Your task to perform on an android device: Go to Amazon Image 0: 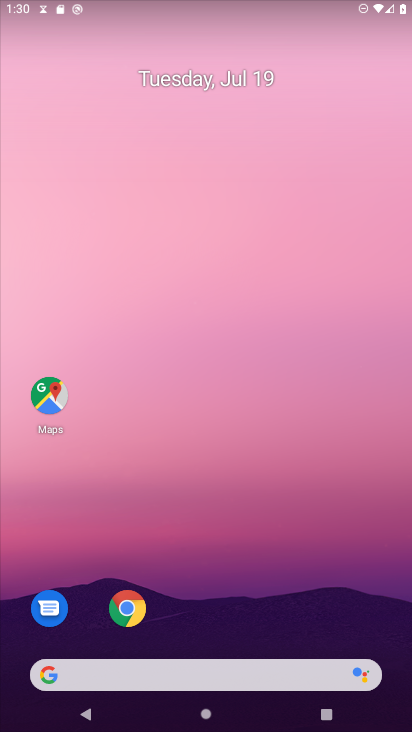
Step 0: drag from (212, 685) to (265, 9)
Your task to perform on an android device: Go to Amazon Image 1: 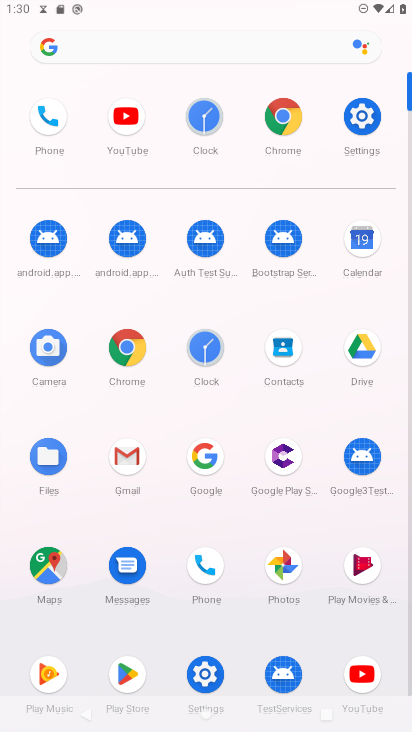
Step 1: click (122, 352)
Your task to perform on an android device: Go to Amazon Image 2: 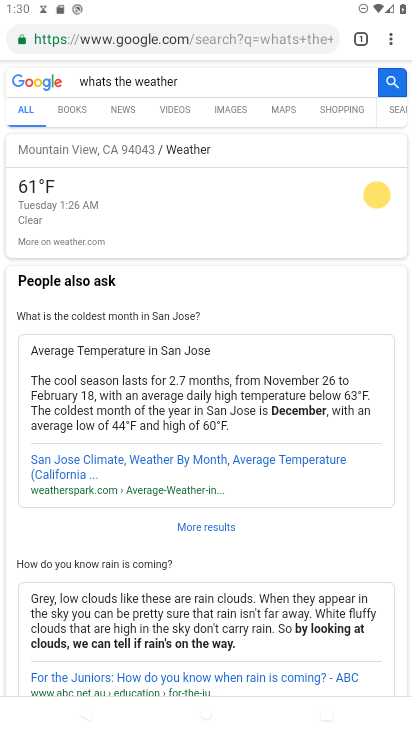
Step 2: click (264, 35)
Your task to perform on an android device: Go to Amazon Image 3: 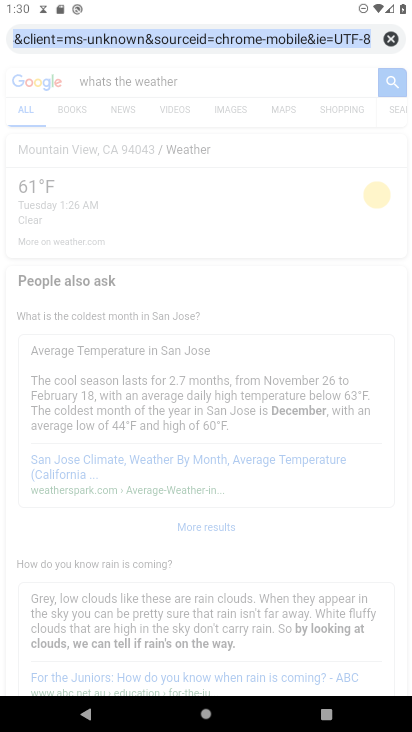
Step 3: type "amazon"
Your task to perform on an android device: Go to Amazon Image 4: 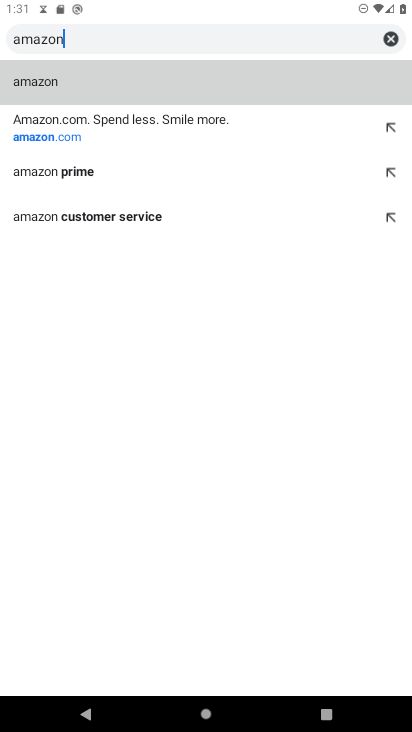
Step 4: click (111, 141)
Your task to perform on an android device: Go to Amazon Image 5: 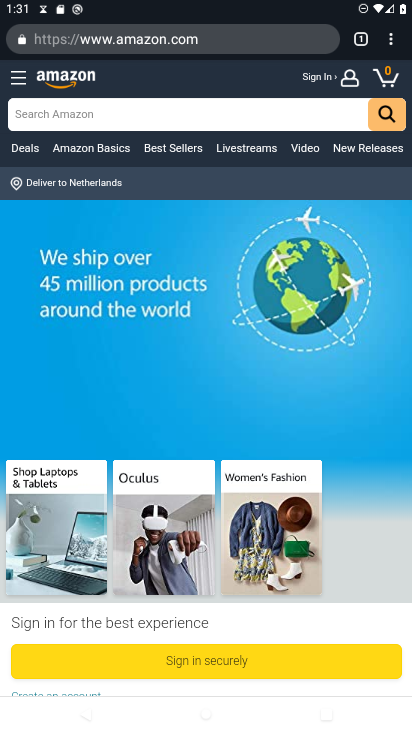
Step 5: task complete